Your task to perform on an android device: move a message to another label in the gmail app Image 0: 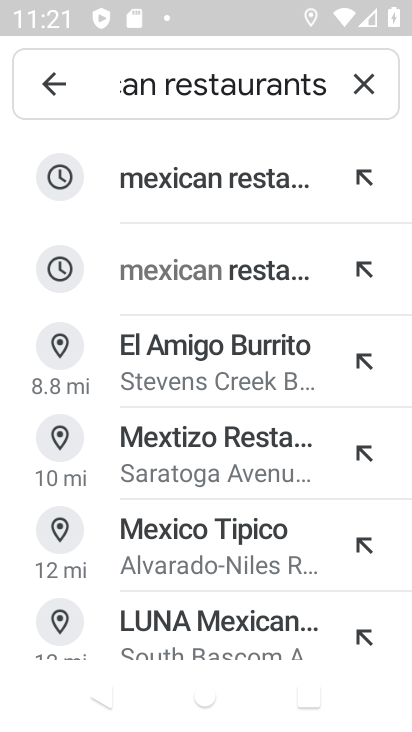
Step 0: press home button
Your task to perform on an android device: move a message to another label in the gmail app Image 1: 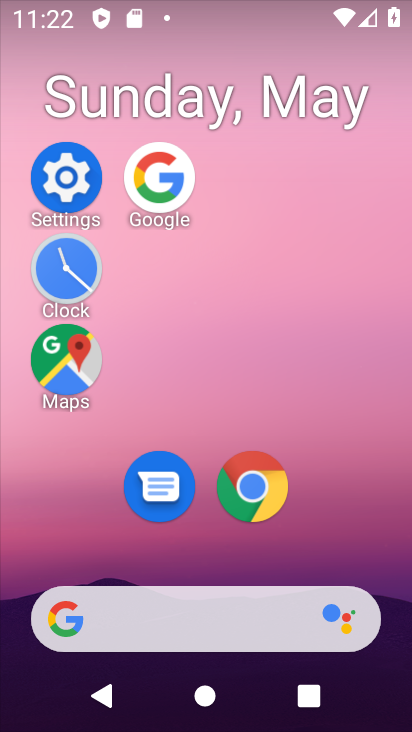
Step 1: drag from (337, 552) to (315, 144)
Your task to perform on an android device: move a message to another label in the gmail app Image 2: 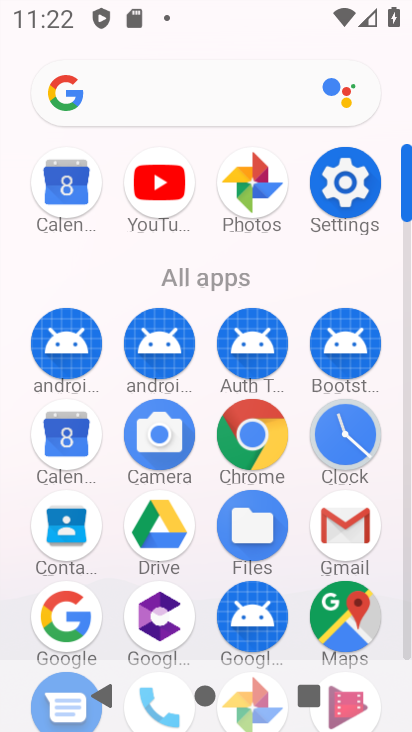
Step 2: drag from (341, 535) to (184, 277)
Your task to perform on an android device: move a message to another label in the gmail app Image 3: 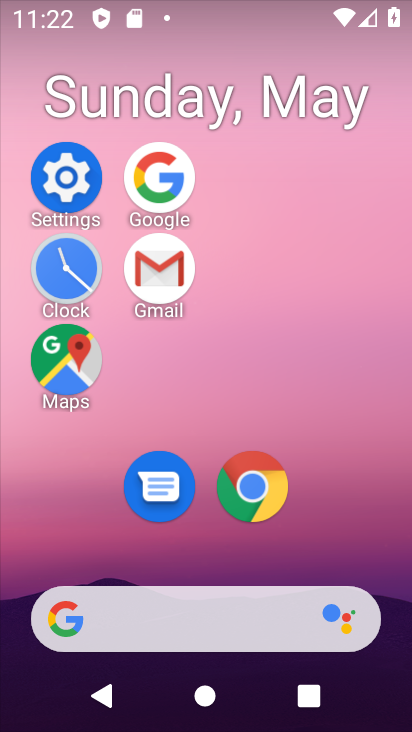
Step 3: click (175, 266)
Your task to perform on an android device: move a message to another label in the gmail app Image 4: 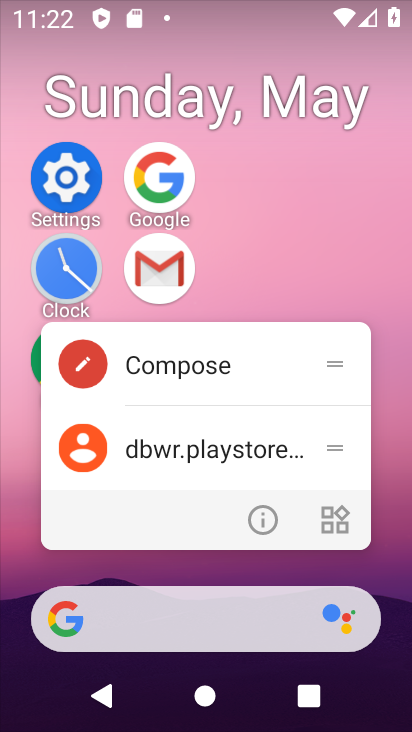
Step 4: click (176, 266)
Your task to perform on an android device: move a message to another label in the gmail app Image 5: 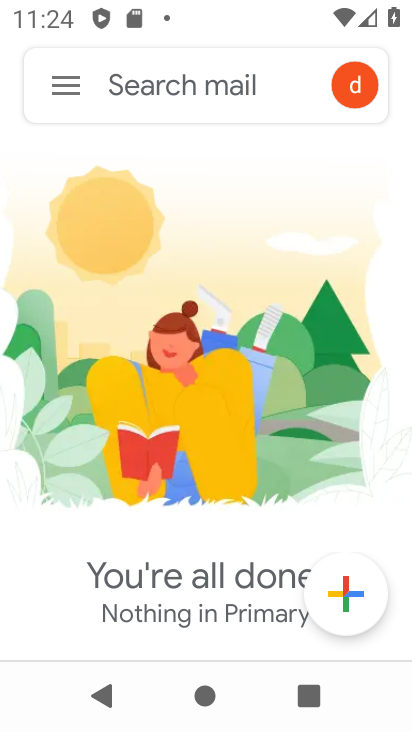
Step 5: press home button
Your task to perform on an android device: move a message to another label in the gmail app Image 6: 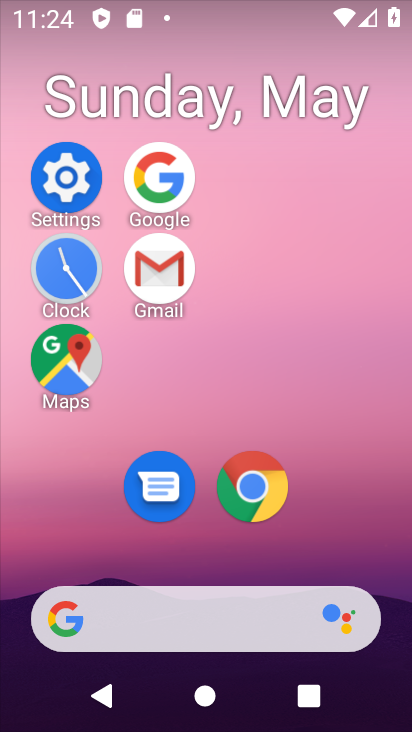
Step 6: click (161, 261)
Your task to perform on an android device: move a message to another label in the gmail app Image 7: 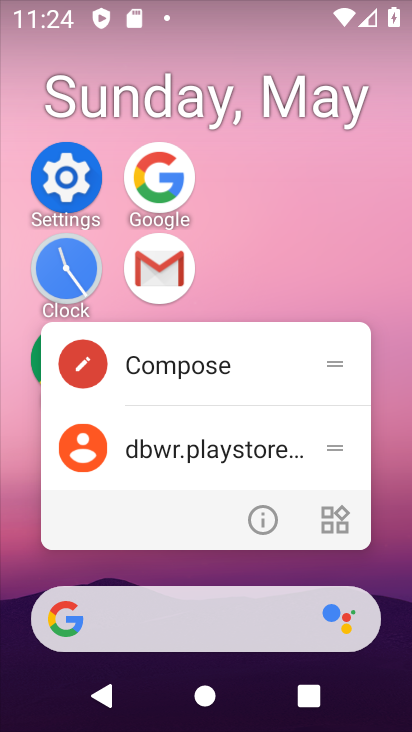
Step 7: click (155, 266)
Your task to perform on an android device: move a message to another label in the gmail app Image 8: 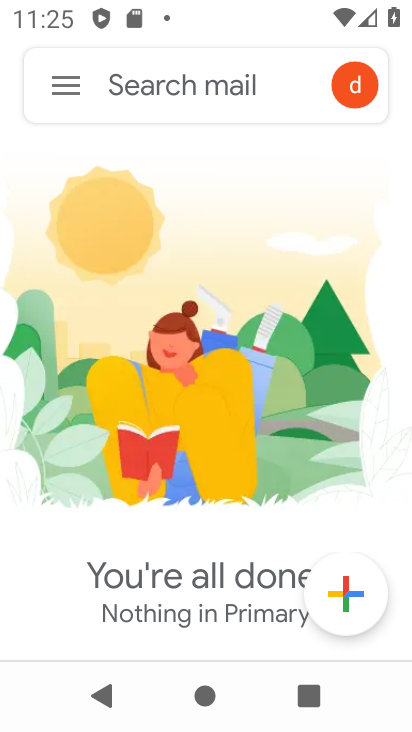
Step 8: click (38, 96)
Your task to perform on an android device: move a message to another label in the gmail app Image 9: 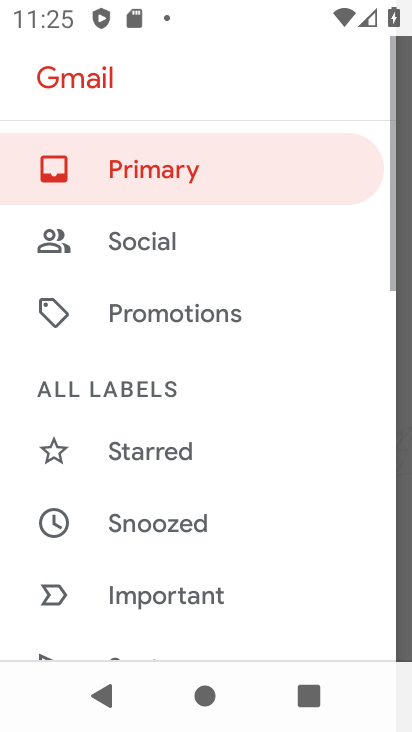
Step 9: drag from (211, 572) to (261, 142)
Your task to perform on an android device: move a message to another label in the gmail app Image 10: 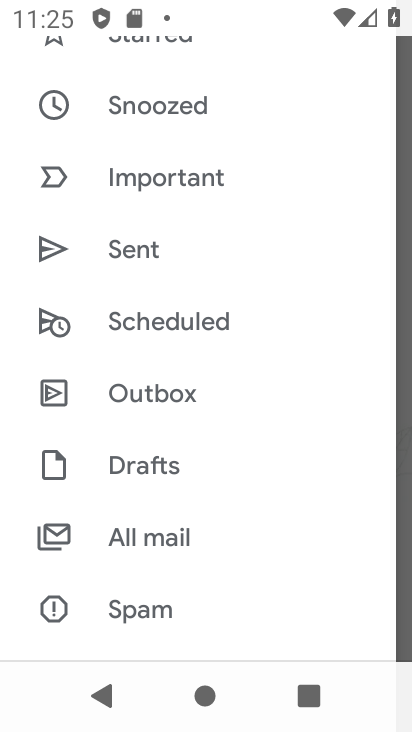
Step 10: click (184, 531)
Your task to perform on an android device: move a message to another label in the gmail app Image 11: 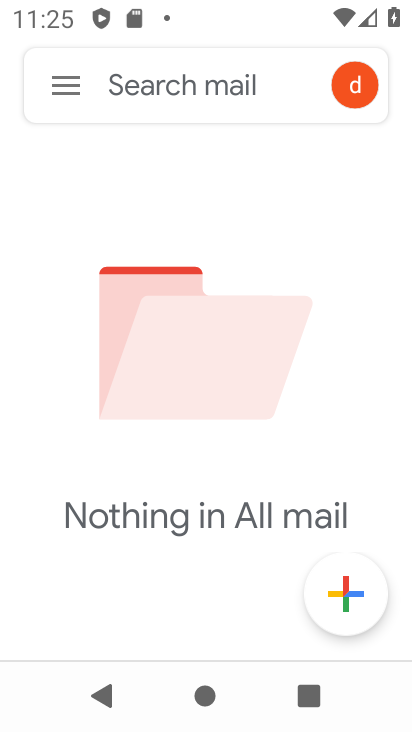
Step 11: task complete